Your task to perform on an android device: open chrome privacy settings Image 0: 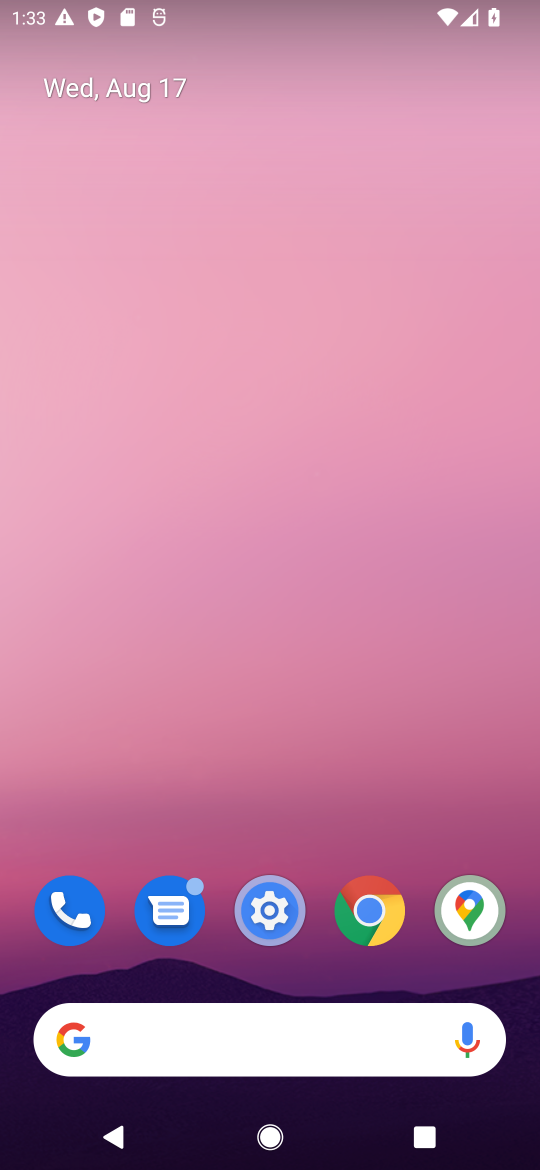
Step 0: click (373, 915)
Your task to perform on an android device: open chrome privacy settings Image 1: 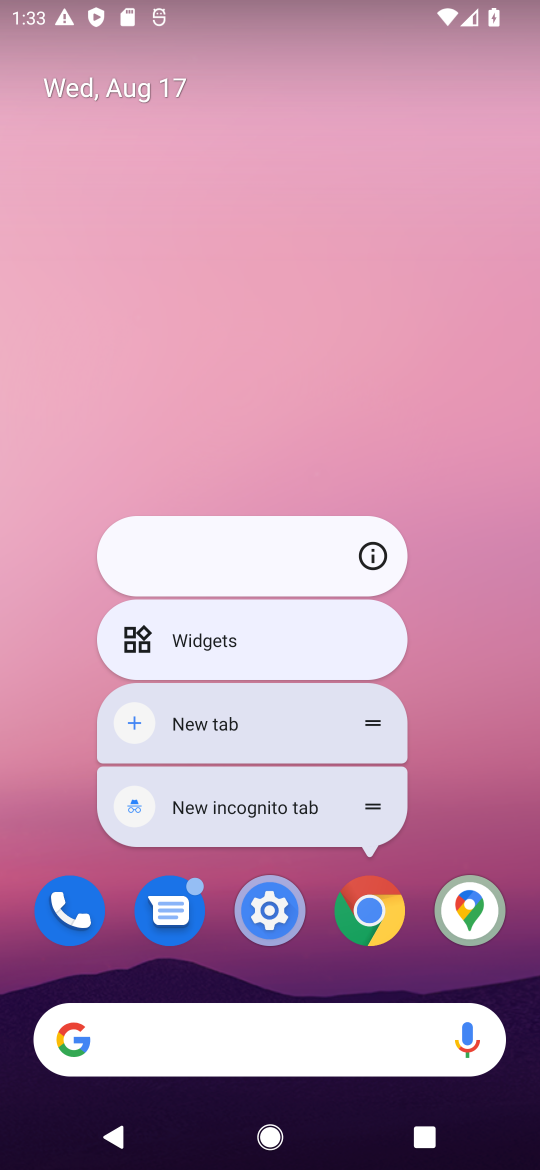
Step 1: click (371, 913)
Your task to perform on an android device: open chrome privacy settings Image 2: 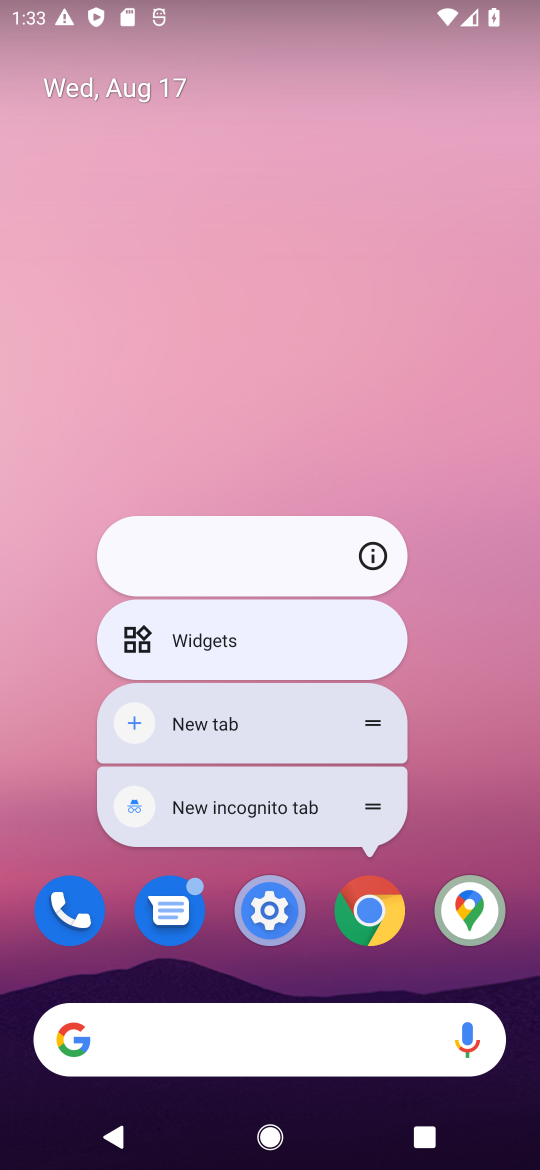
Step 2: click (370, 913)
Your task to perform on an android device: open chrome privacy settings Image 3: 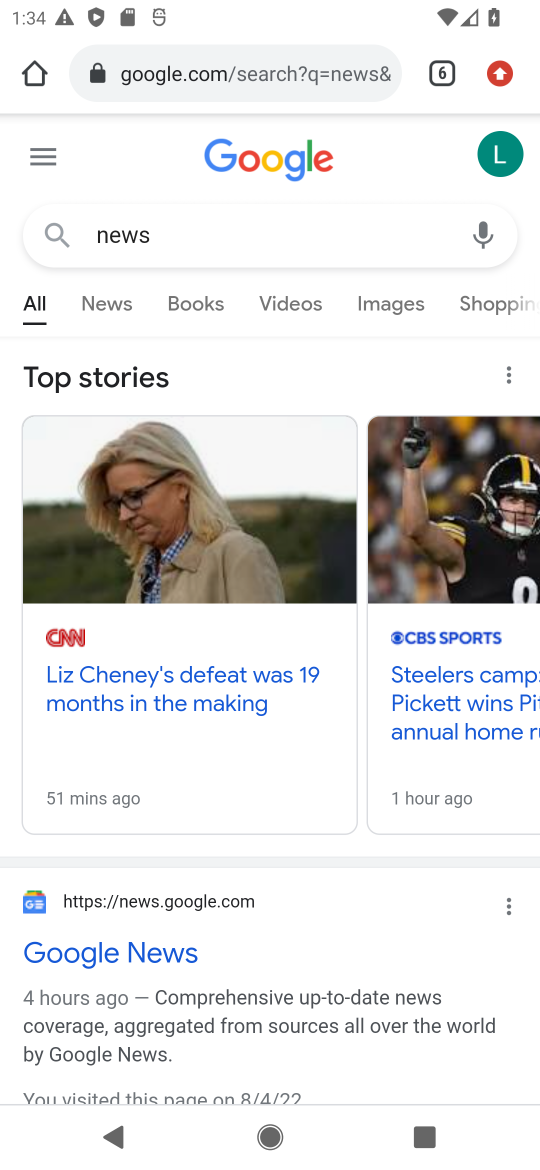
Step 3: drag from (505, 62) to (294, 929)
Your task to perform on an android device: open chrome privacy settings Image 4: 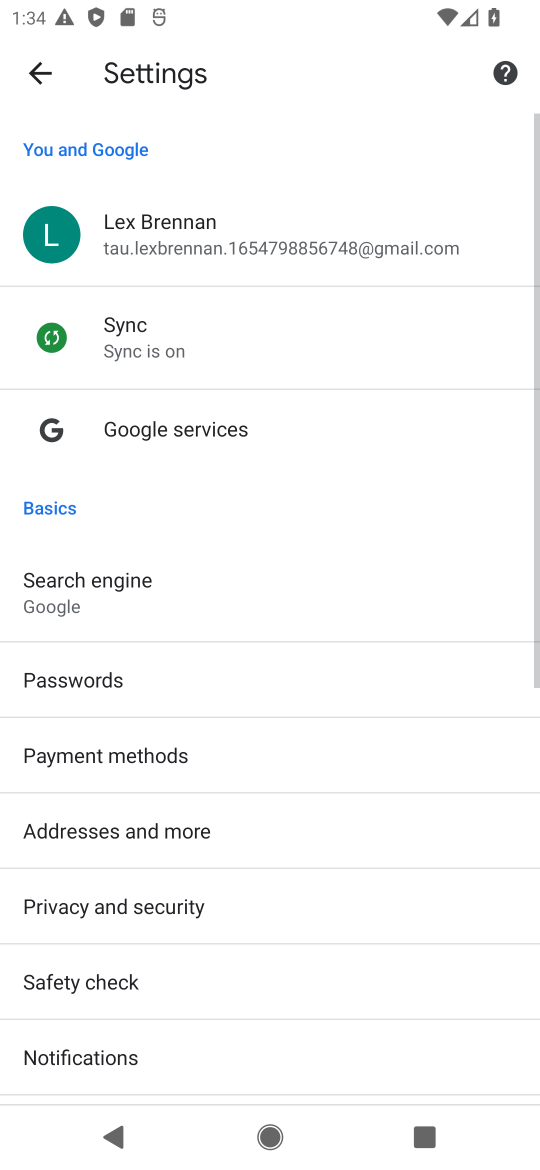
Step 4: drag from (190, 1041) to (380, 700)
Your task to perform on an android device: open chrome privacy settings Image 5: 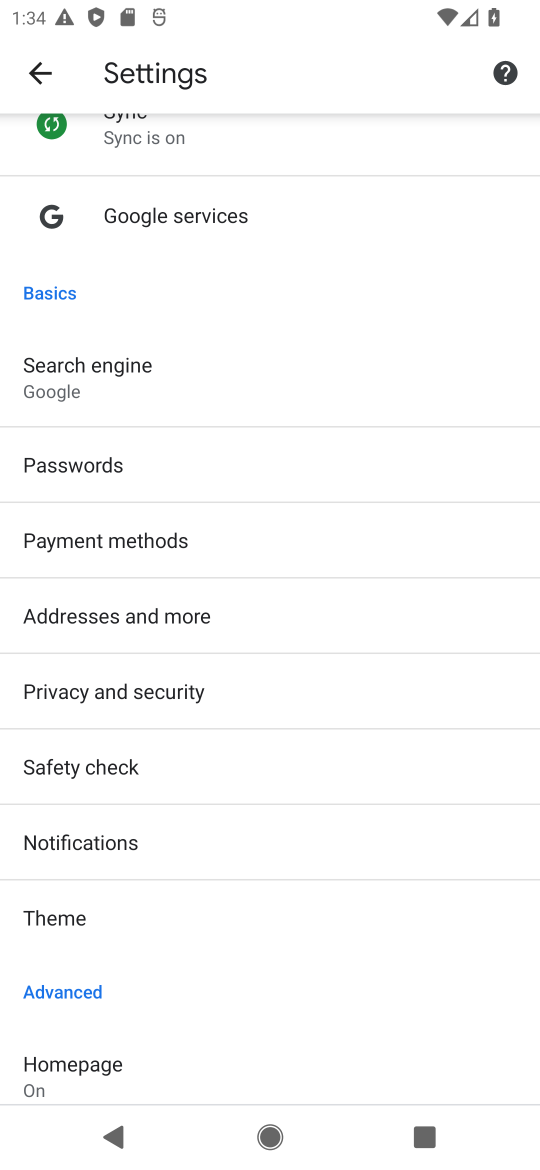
Step 5: click (123, 683)
Your task to perform on an android device: open chrome privacy settings Image 6: 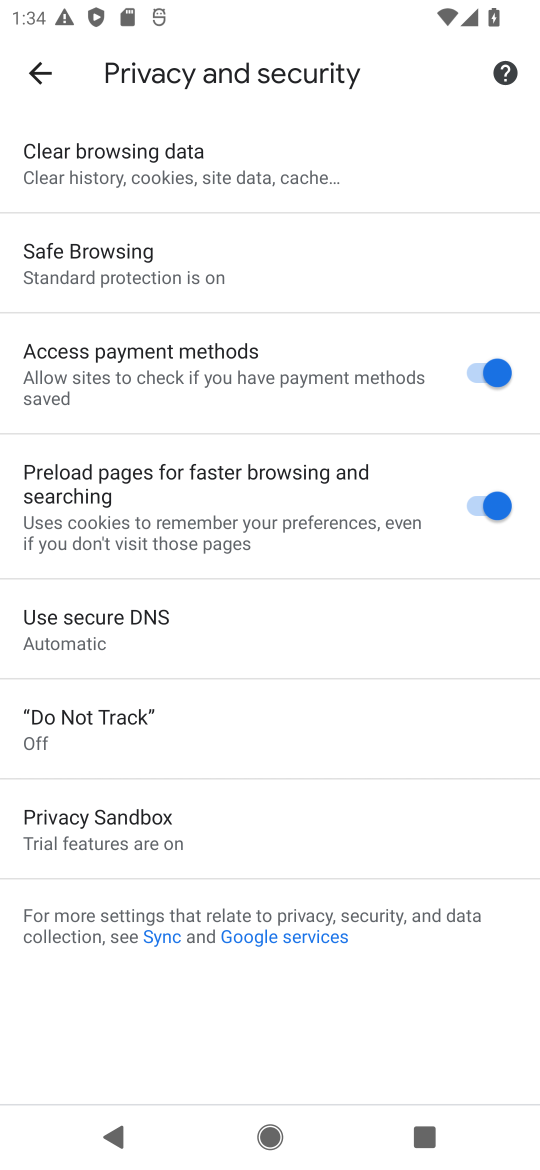
Step 6: task complete